Your task to perform on an android device: Open notification settings Image 0: 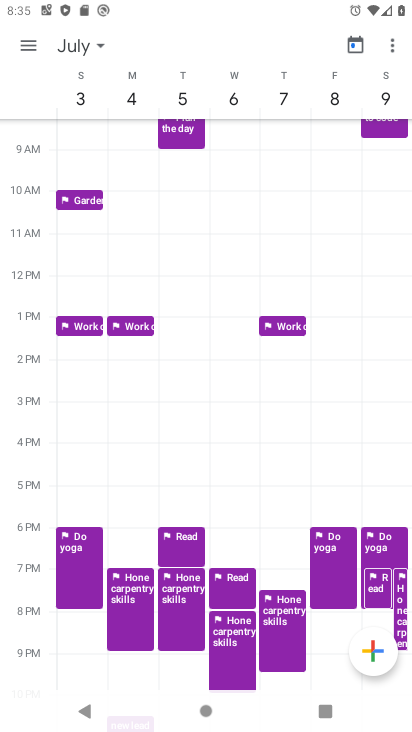
Step 0: press home button
Your task to perform on an android device: Open notification settings Image 1: 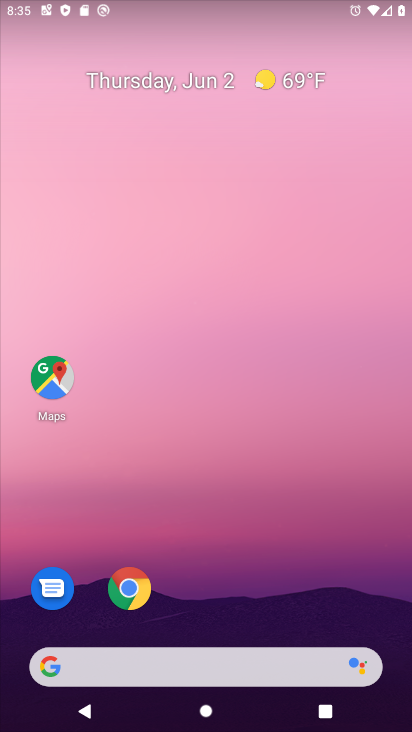
Step 1: drag from (232, 727) to (233, 10)
Your task to perform on an android device: Open notification settings Image 2: 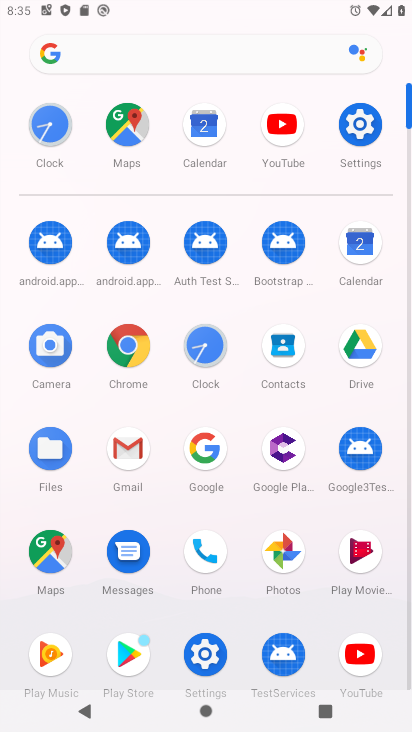
Step 2: click (361, 122)
Your task to perform on an android device: Open notification settings Image 3: 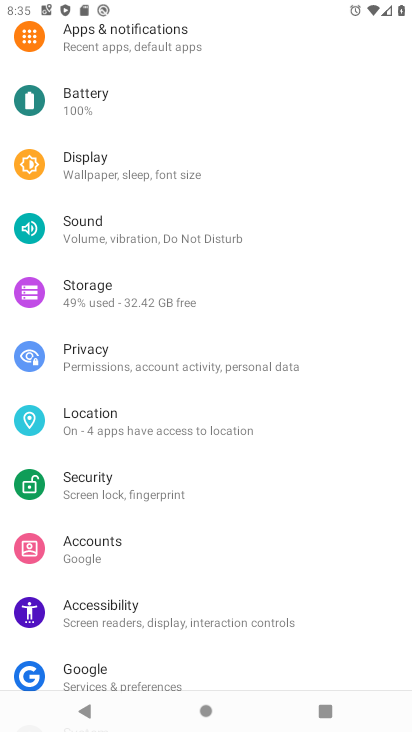
Step 3: click (134, 37)
Your task to perform on an android device: Open notification settings Image 4: 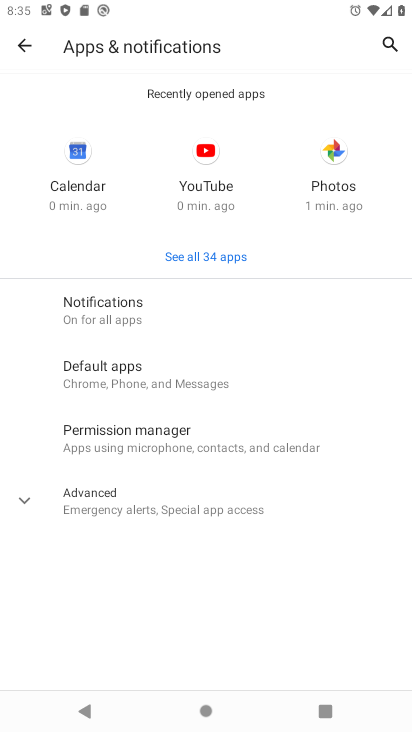
Step 4: click (108, 307)
Your task to perform on an android device: Open notification settings Image 5: 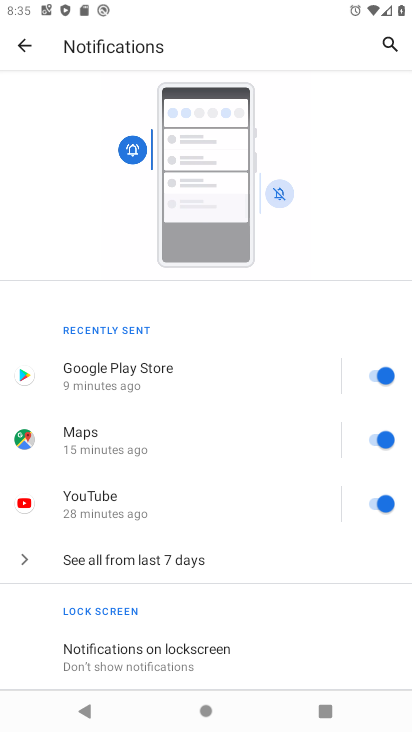
Step 5: task complete